Your task to perform on an android device: Open the phone app and click the voicemail tab. Image 0: 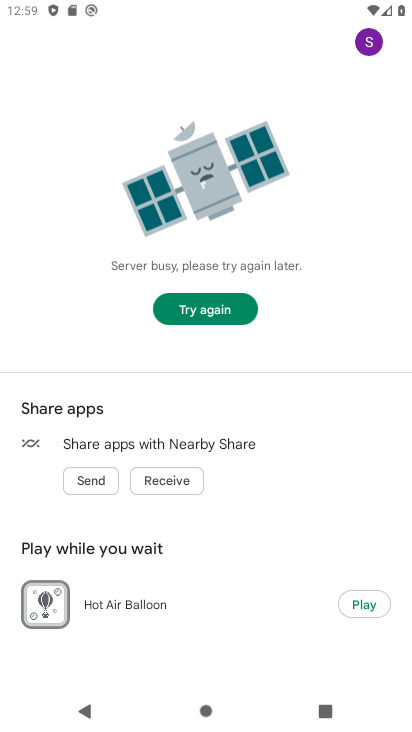
Step 0: press home button
Your task to perform on an android device: Open the phone app and click the voicemail tab. Image 1: 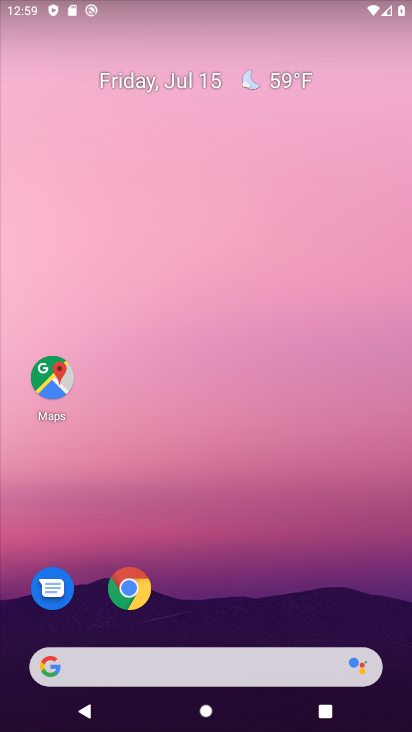
Step 1: drag from (239, 617) to (254, 34)
Your task to perform on an android device: Open the phone app and click the voicemail tab. Image 2: 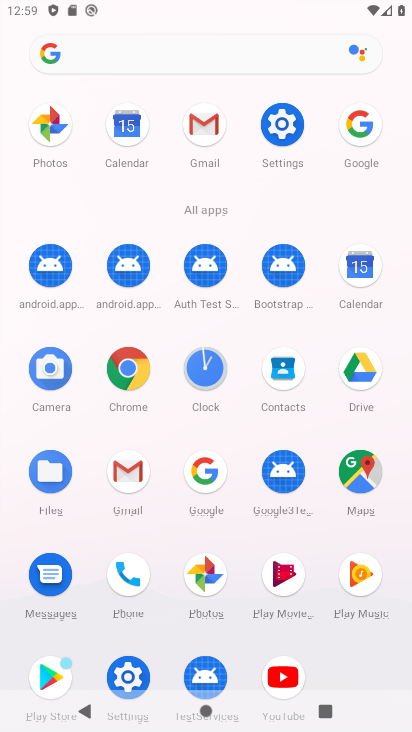
Step 2: click (138, 571)
Your task to perform on an android device: Open the phone app and click the voicemail tab. Image 3: 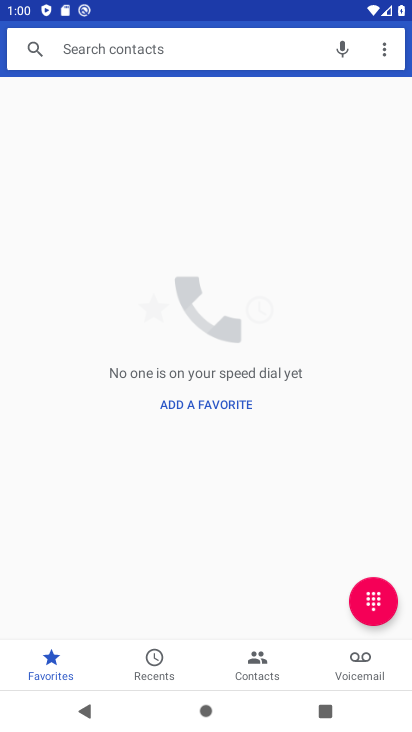
Step 3: click (355, 667)
Your task to perform on an android device: Open the phone app and click the voicemail tab. Image 4: 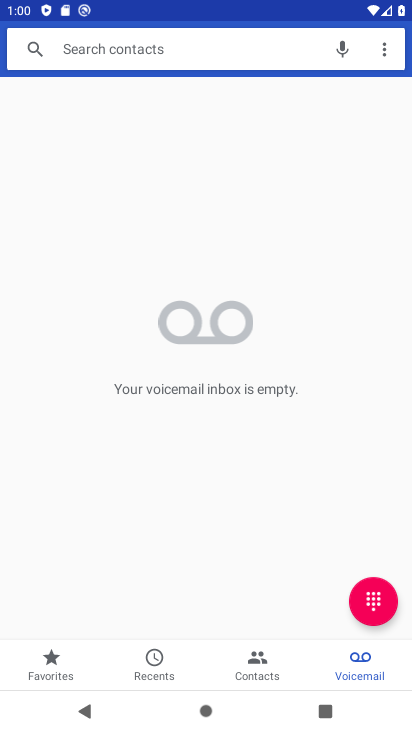
Step 4: task complete